Your task to perform on an android device: turn on translation in the chrome app Image 0: 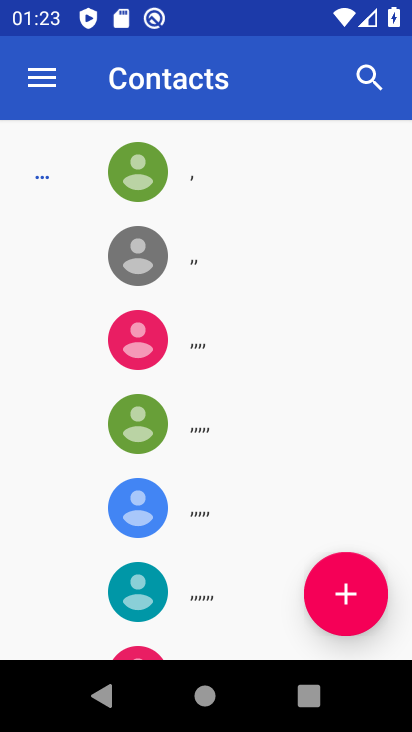
Step 0: press home button
Your task to perform on an android device: turn on translation in the chrome app Image 1: 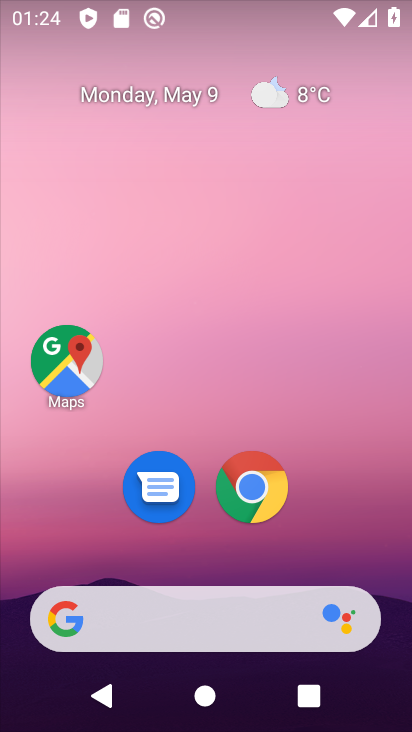
Step 1: click (277, 487)
Your task to perform on an android device: turn on translation in the chrome app Image 2: 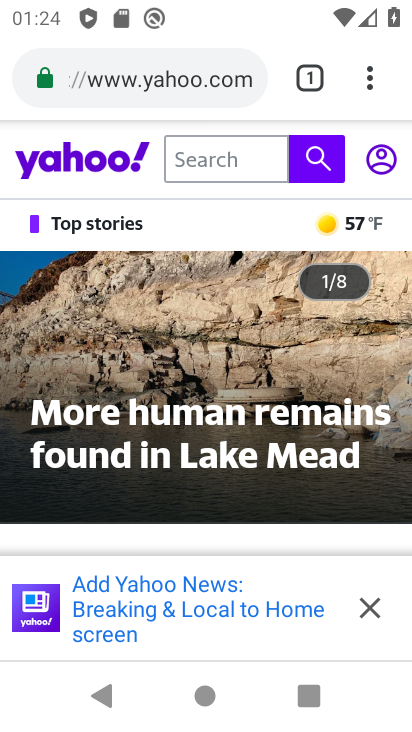
Step 2: click (380, 66)
Your task to perform on an android device: turn on translation in the chrome app Image 3: 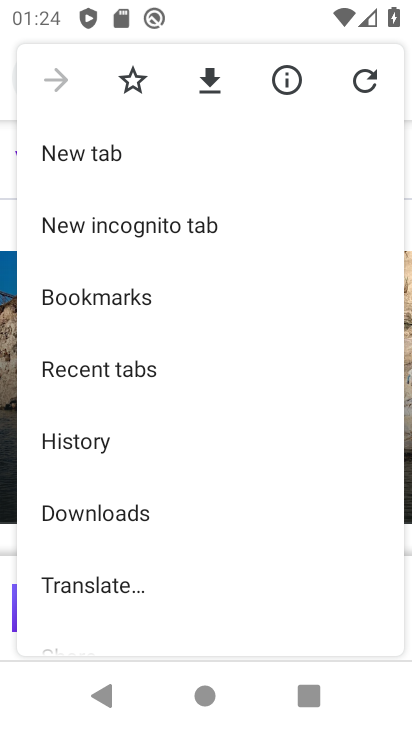
Step 3: drag from (151, 571) to (143, 159)
Your task to perform on an android device: turn on translation in the chrome app Image 4: 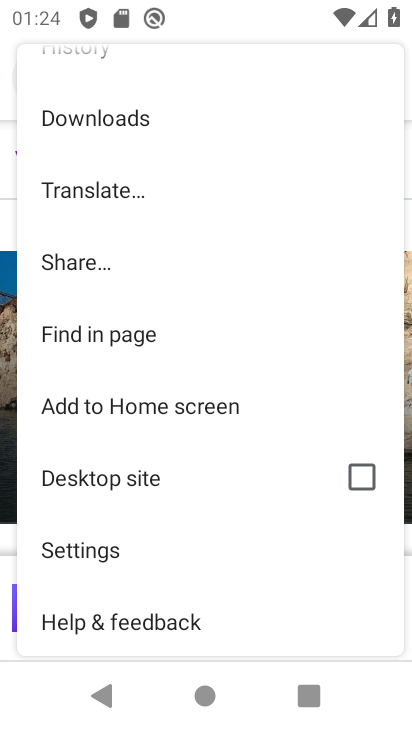
Step 4: click (128, 557)
Your task to perform on an android device: turn on translation in the chrome app Image 5: 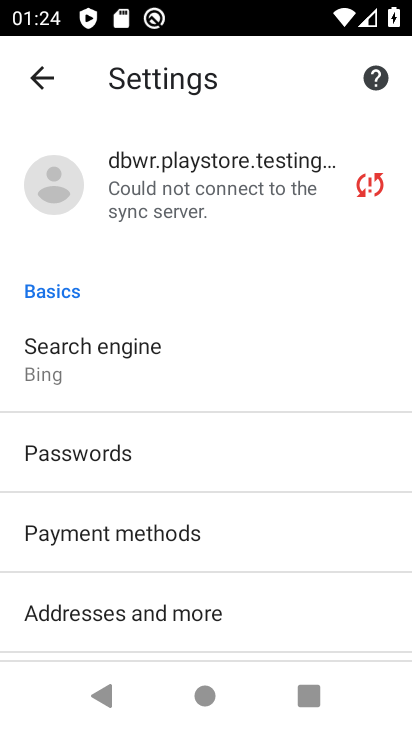
Step 5: drag from (193, 574) to (177, 277)
Your task to perform on an android device: turn on translation in the chrome app Image 6: 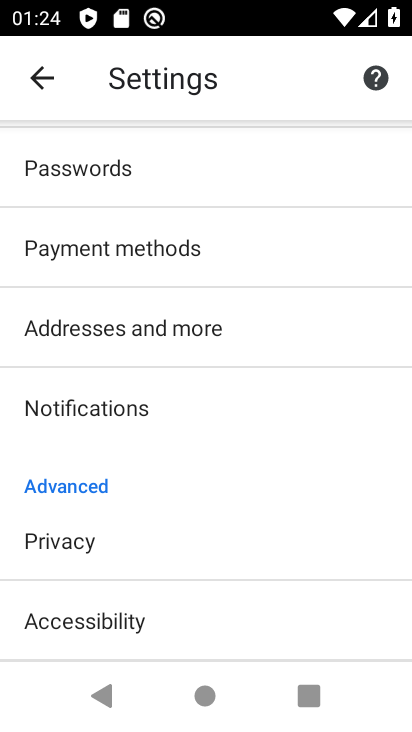
Step 6: drag from (216, 584) to (191, 209)
Your task to perform on an android device: turn on translation in the chrome app Image 7: 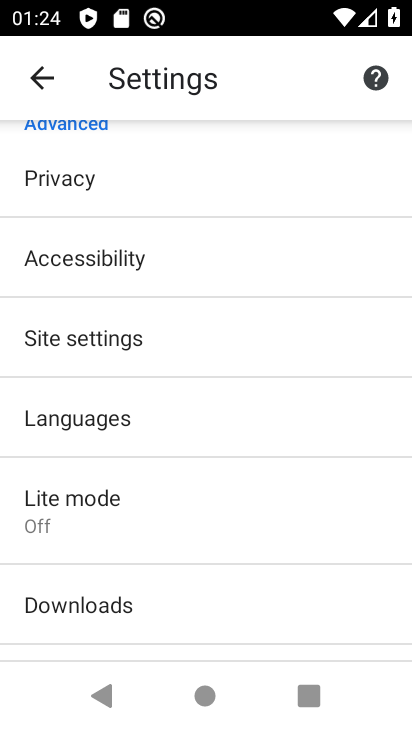
Step 7: click (123, 418)
Your task to perform on an android device: turn on translation in the chrome app Image 8: 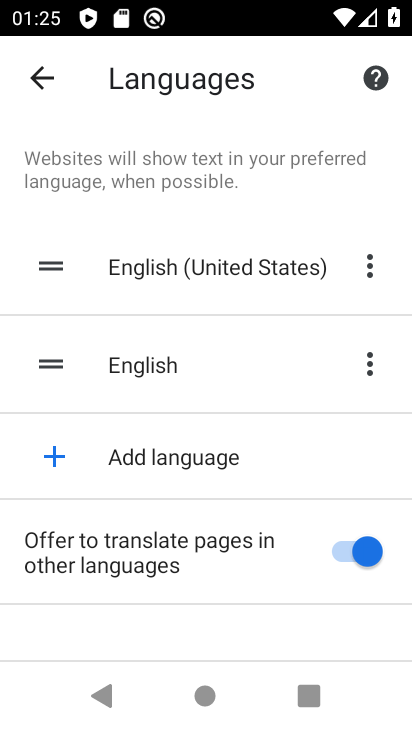
Step 8: task complete